Your task to perform on an android device: stop showing notifications on the lock screen Image 0: 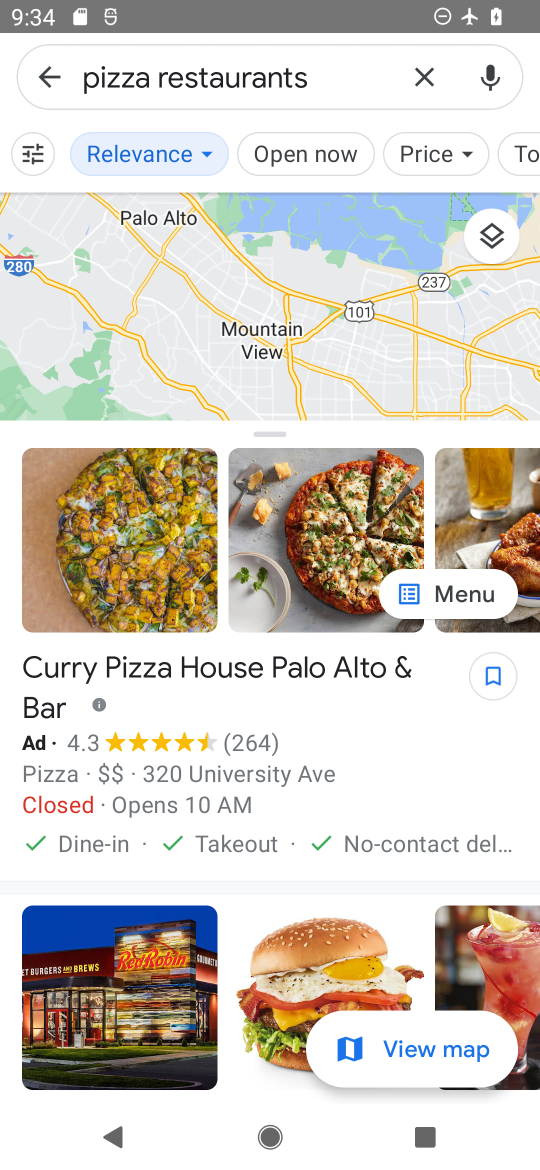
Step 0: press home button
Your task to perform on an android device: stop showing notifications on the lock screen Image 1: 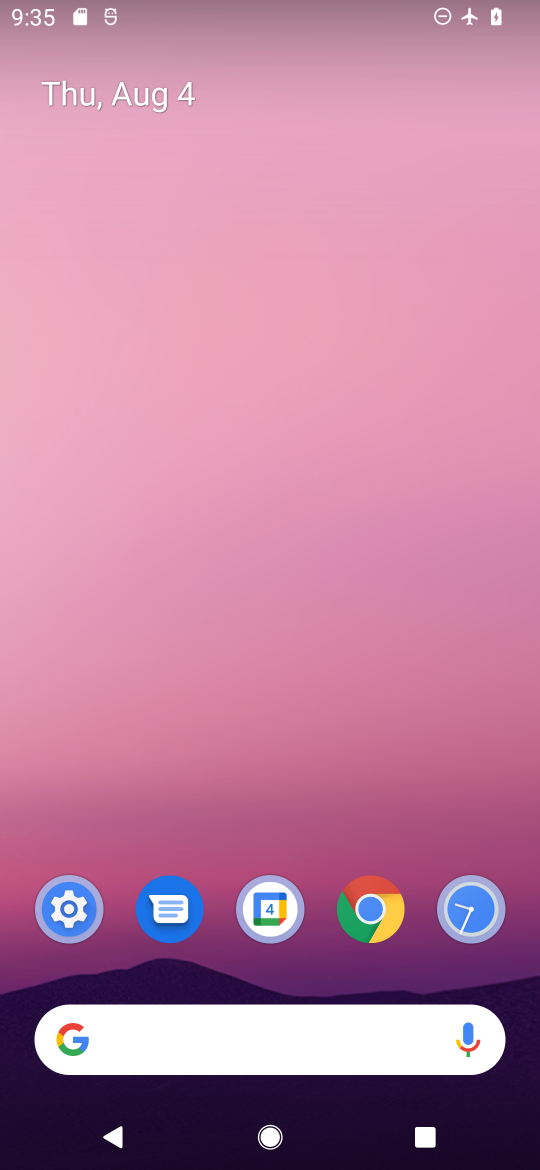
Step 1: drag from (296, 761) to (296, 169)
Your task to perform on an android device: stop showing notifications on the lock screen Image 2: 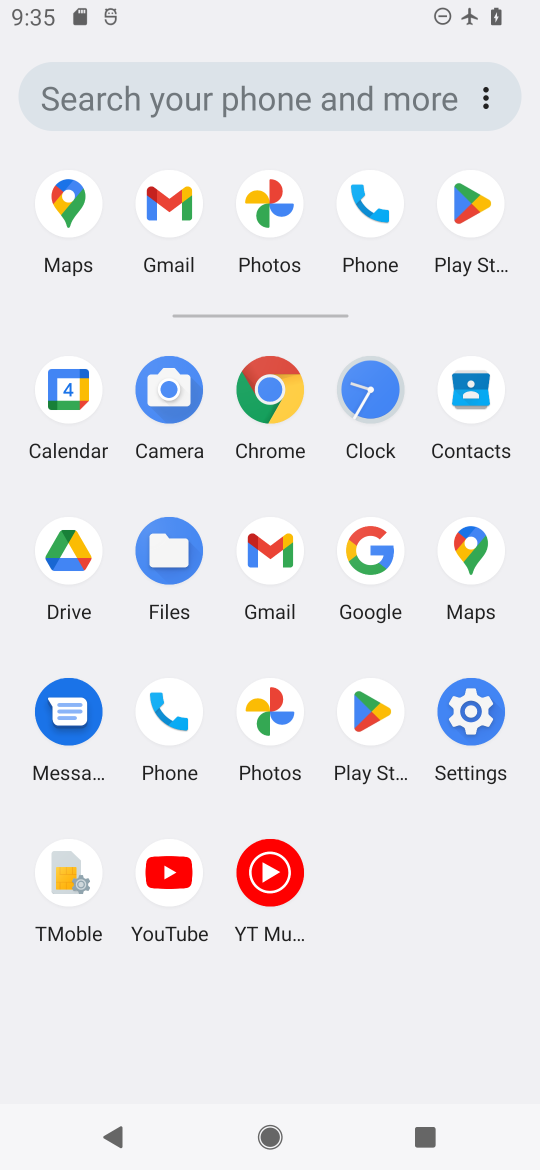
Step 2: click (474, 721)
Your task to perform on an android device: stop showing notifications on the lock screen Image 3: 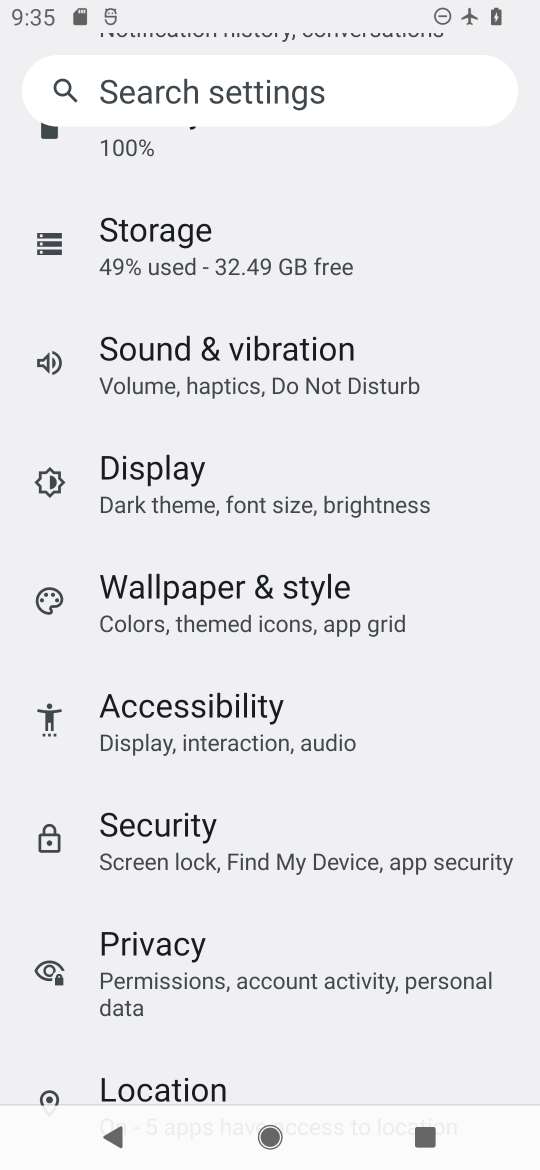
Step 3: drag from (472, 397) to (473, 520)
Your task to perform on an android device: stop showing notifications on the lock screen Image 4: 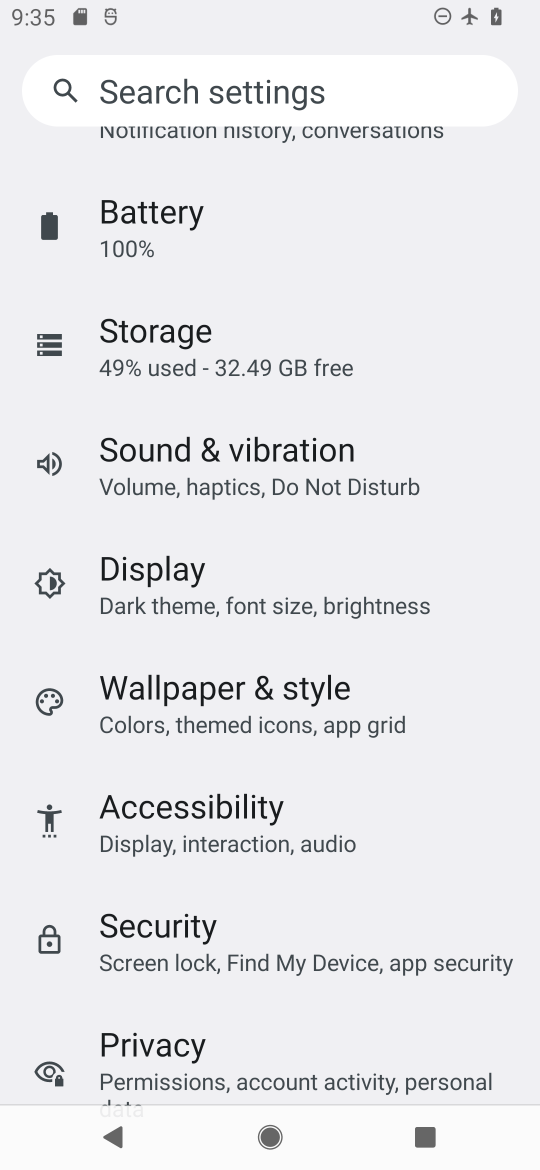
Step 4: drag from (466, 368) to (473, 650)
Your task to perform on an android device: stop showing notifications on the lock screen Image 5: 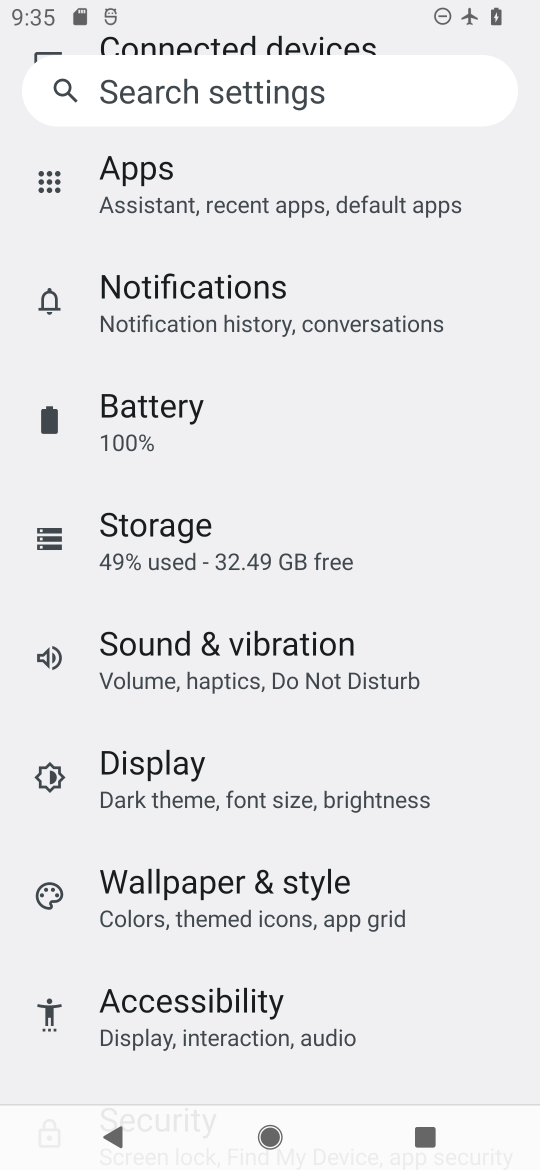
Step 5: drag from (471, 389) to (452, 584)
Your task to perform on an android device: stop showing notifications on the lock screen Image 6: 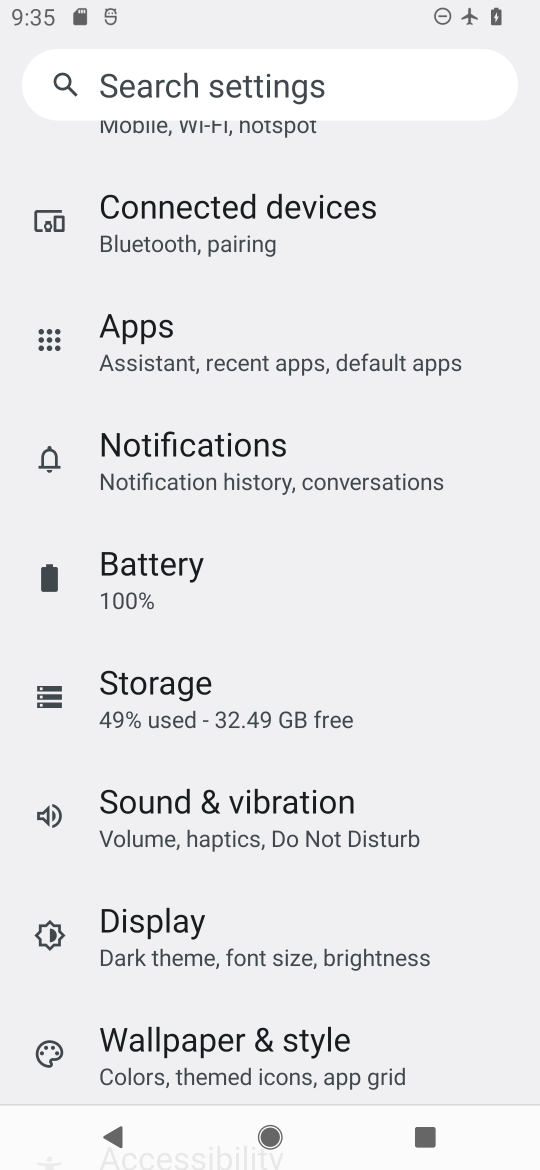
Step 6: drag from (462, 442) to (458, 637)
Your task to perform on an android device: stop showing notifications on the lock screen Image 7: 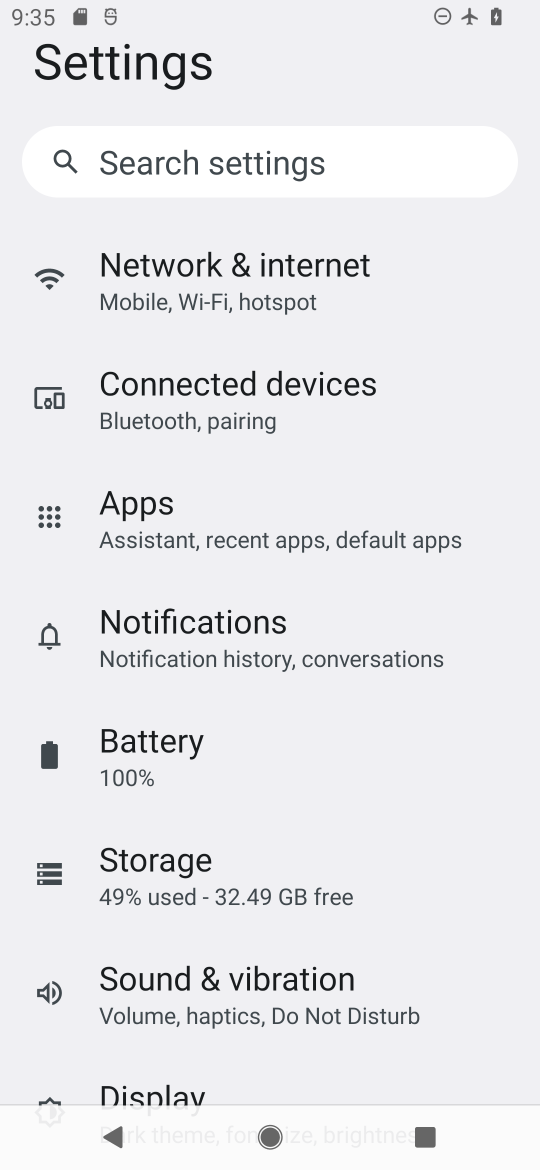
Step 7: click (260, 586)
Your task to perform on an android device: stop showing notifications on the lock screen Image 8: 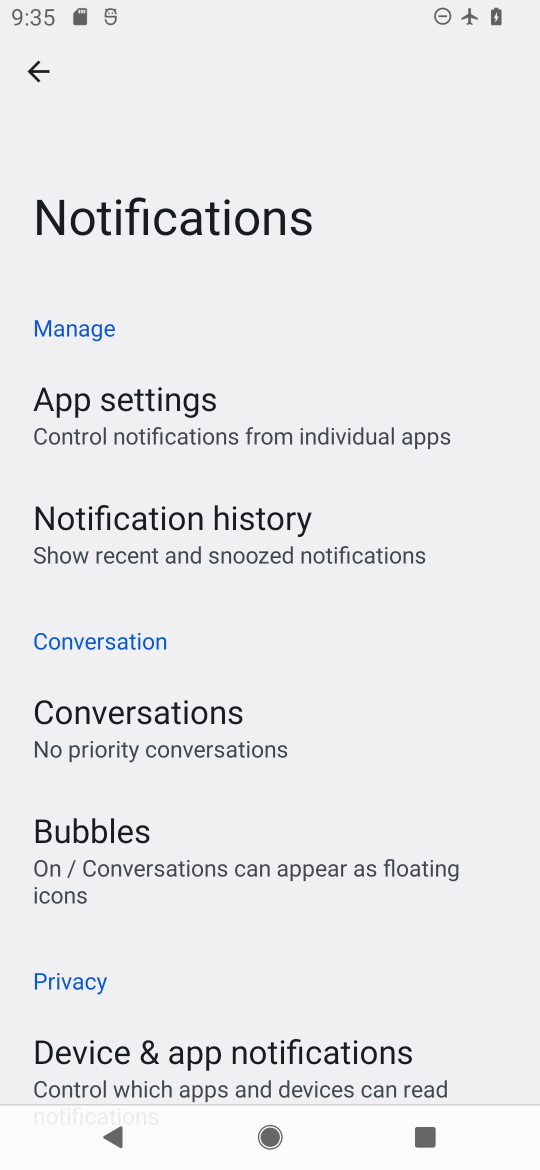
Step 8: drag from (463, 811) to (466, 600)
Your task to perform on an android device: stop showing notifications on the lock screen Image 9: 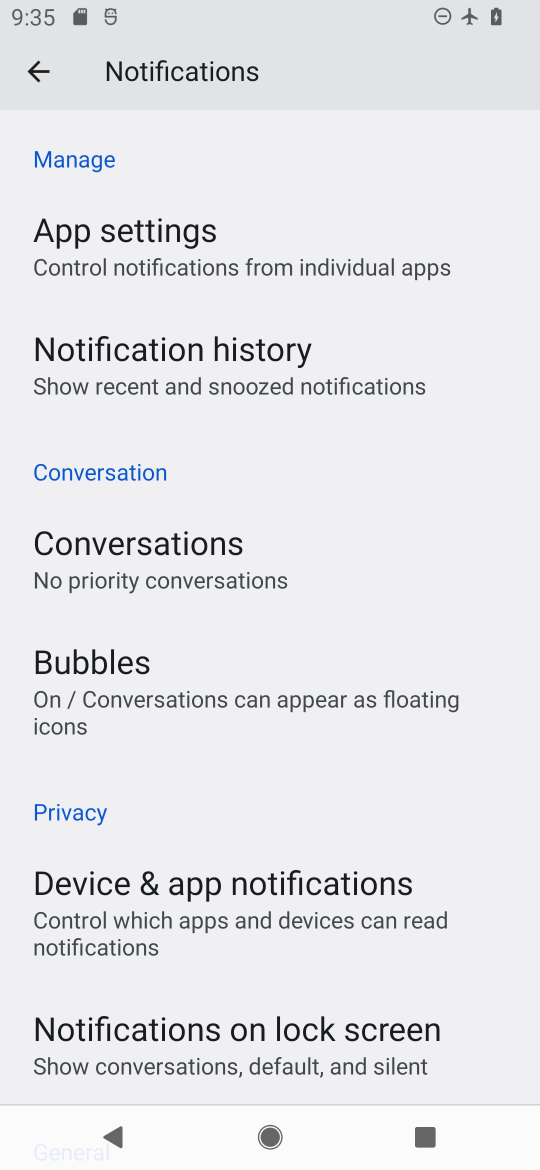
Step 9: drag from (473, 890) to (476, 708)
Your task to perform on an android device: stop showing notifications on the lock screen Image 10: 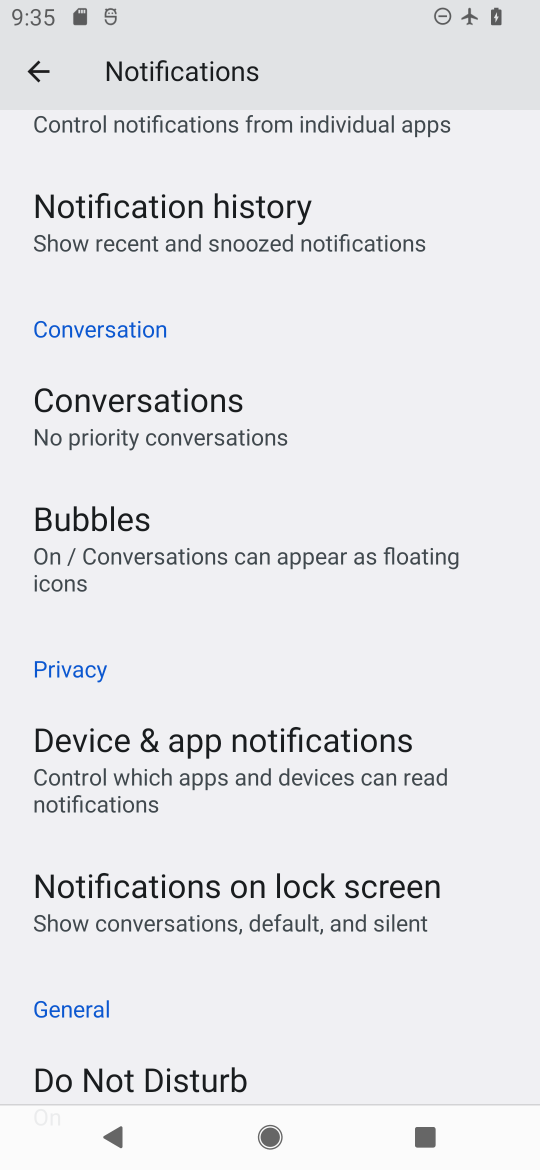
Step 10: drag from (461, 971) to (464, 764)
Your task to perform on an android device: stop showing notifications on the lock screen Image 11: 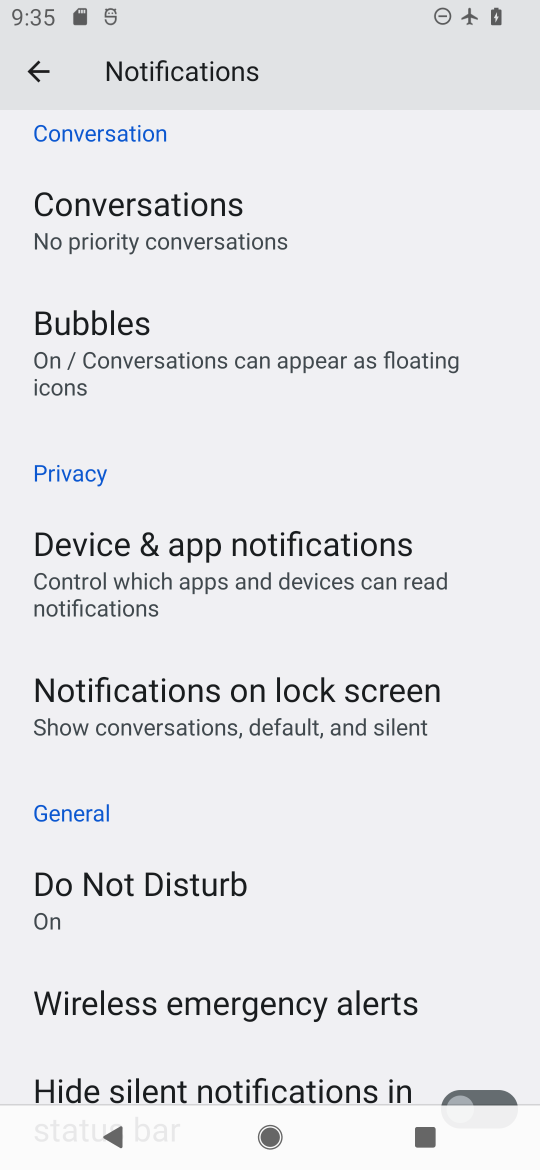
Step 11: drag from (448, 983) to (452, 828)
Your task to perform on an android device: stop showing notifications on the lock screen Image 12: 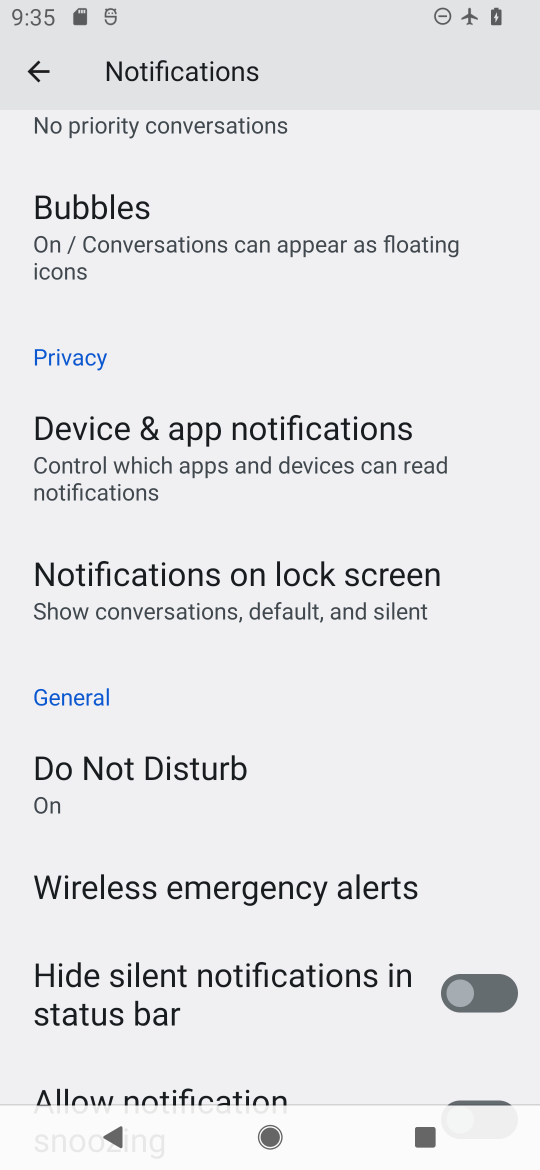
Step 12: click (396, 613)
Your task to perform on an android device: stop showing notifications on the lock screen Image 13: 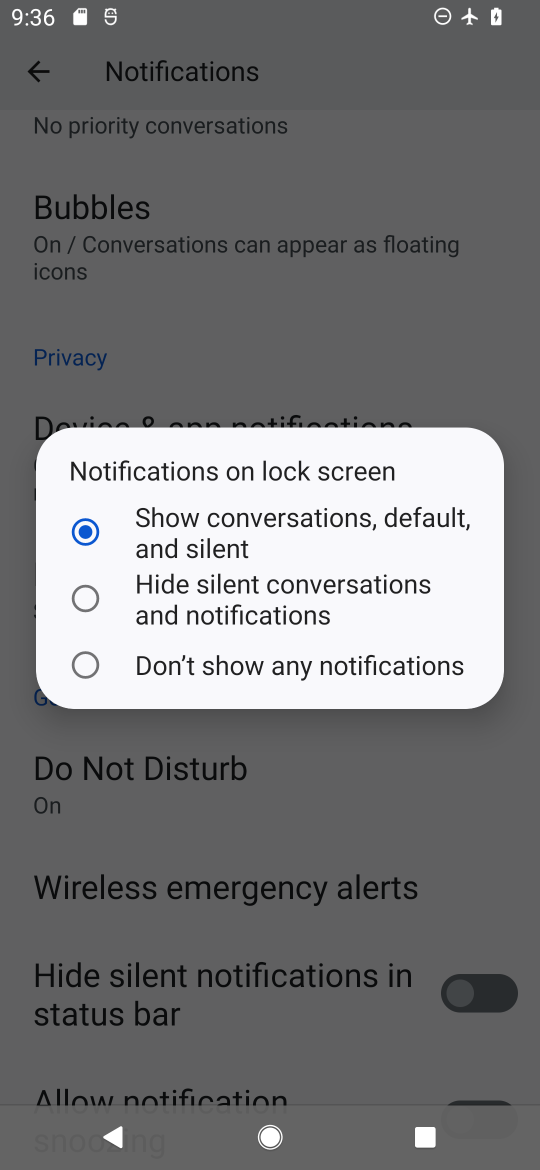
Step 13: click (318, 673)
Your task to perform on an android device: stop showing notifications on the lock screen Image 14: 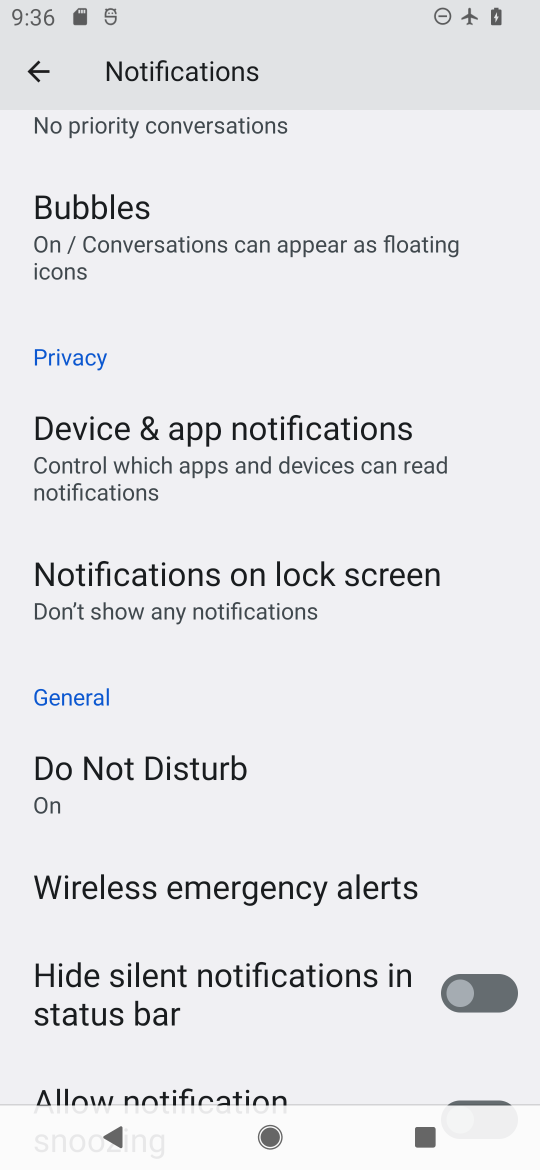
Step 14: task complete